Your task to perform on an android device: Do I have any events today? Image 0: 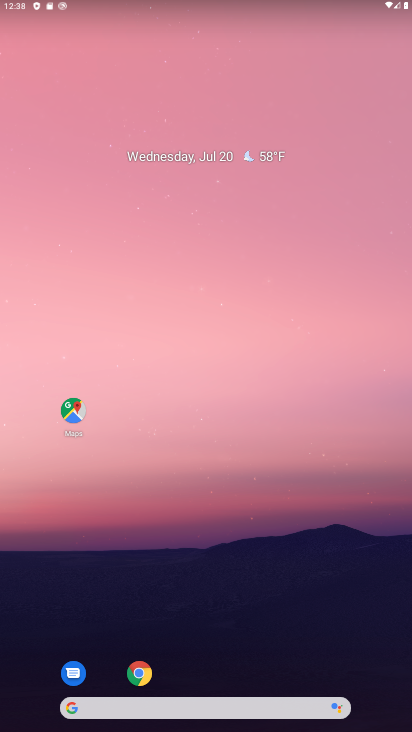
Step 0: drag from (317, 621) to (277, 3)
Your task to perform on an android device: Do I have any events today? Image 1: 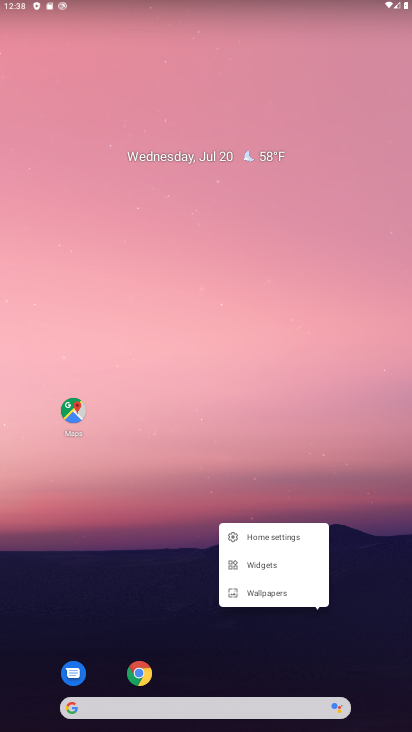
Step 1: click (365, 523)
Your task to perform on an android device: Do I have any events today? Image 2: 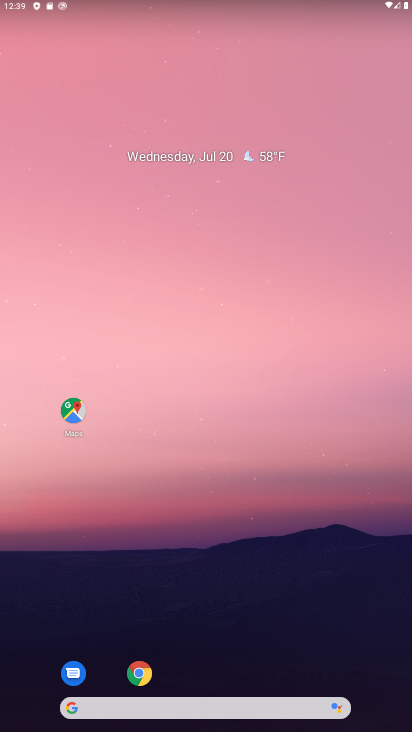
Step 2: drag from (202, 486) to (183, 38)
Your task to perform on an android device: Do I have any events today? Image 3: 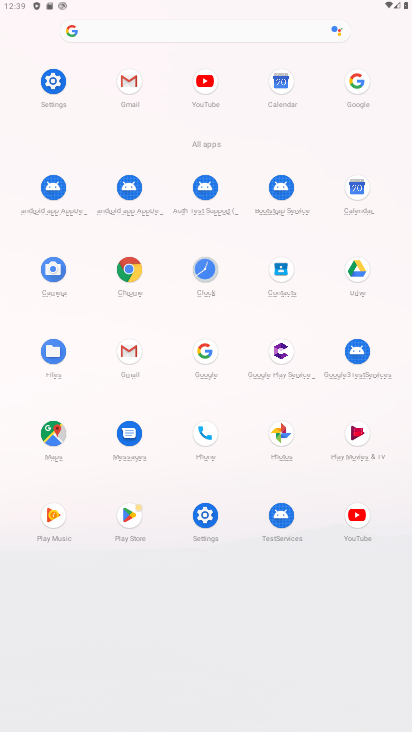
Step 3: click (361, 185)
Your task to perform on an android device: Do I have any events today? Image 4: 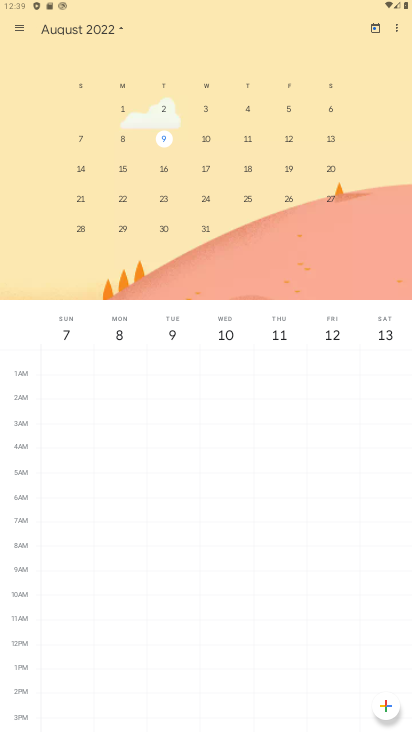
Step 4: click (24, 26)
Your task to perform on an android device: Do I have any events today? Image 5: 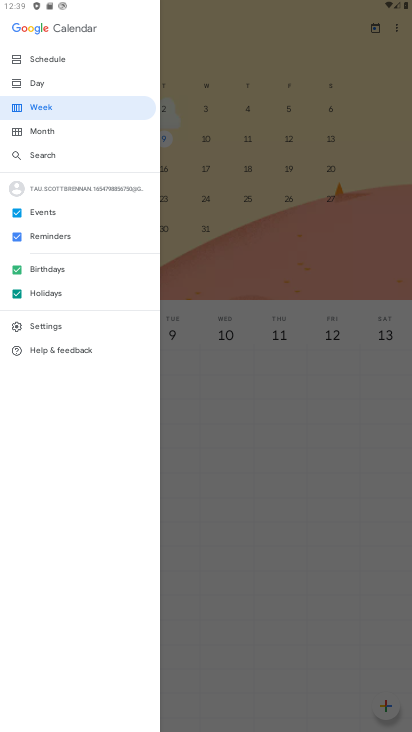
Step 5: click (217, 106)
Your task to perform on an android device: Do I have any events today? Image 6: 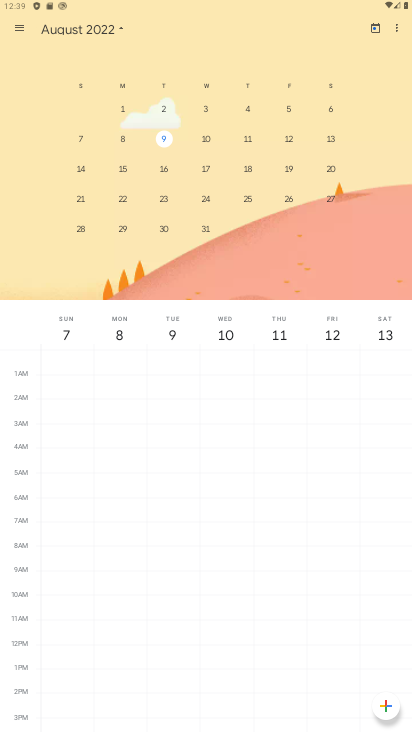
Step 6: drag from (89, 124) to (394, 106)
Your task to perform on an android device: Do I have any events today? Image 7: 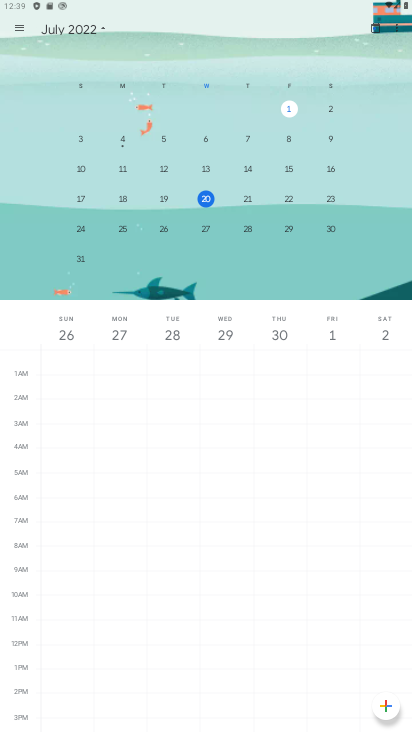
Step 7: click (206, 199)
Your task to perform on an android device: Do I have any events today? Image 8: 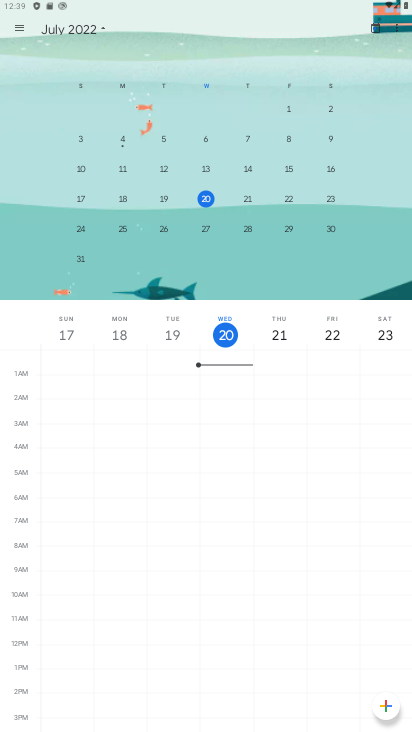
Step 8: click (17, 26)
Your task to perform on an android device: Do I have any events today? Image 9: 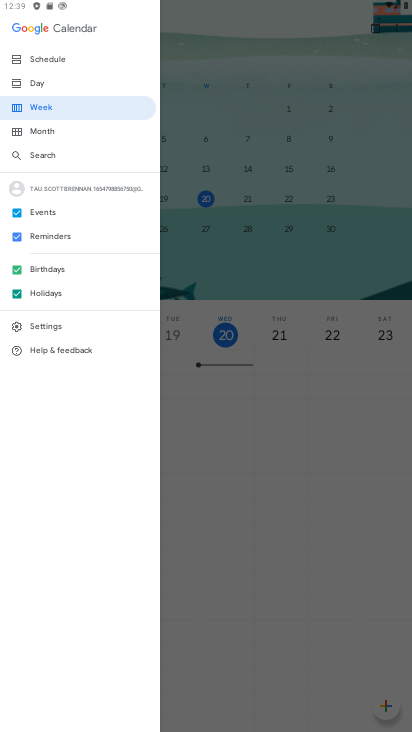
Step 9: click (45, 85)
Your task to perform on an android device: Do I have any events today? Image 10: 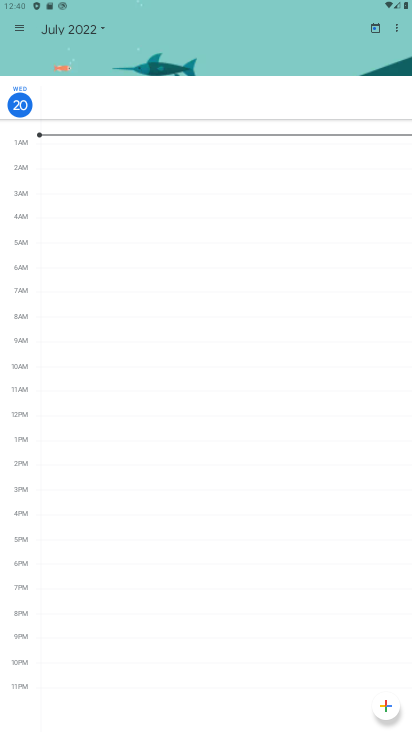
Step 10: task complete